Your task to perform on an android device: Toggle the flashlight Image 0: 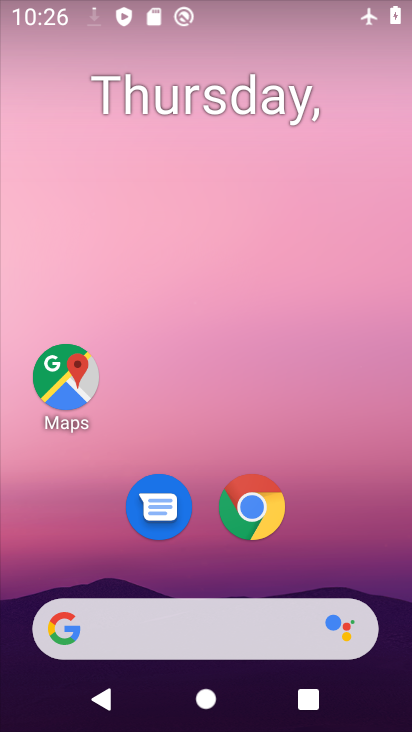
Step 0: drag from (356, 506) to (328, 53)
Your task to perform on an android device: Toggle the flashlight Image 1: 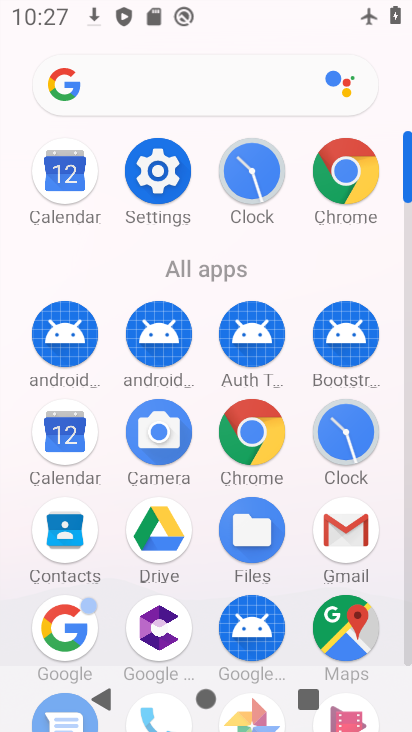
Step 1: drag from (15, 481) to (0, 267)
Your task to perform on an android device: Toggle the flashlight Image 2: 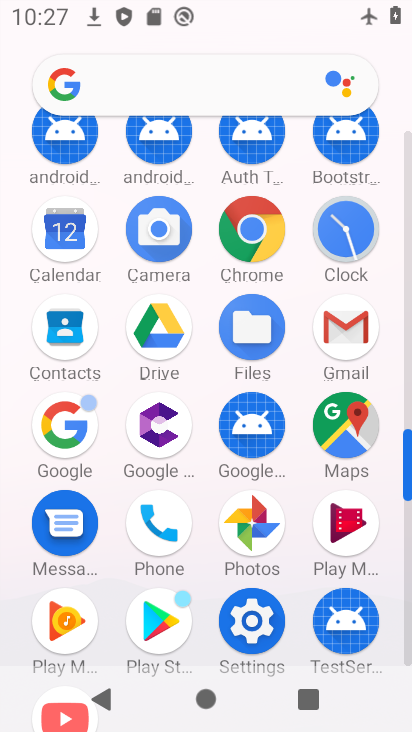
Step 2: click (251, 620)
Your task to perform on an android device: Toggle the flashlight Image 3: 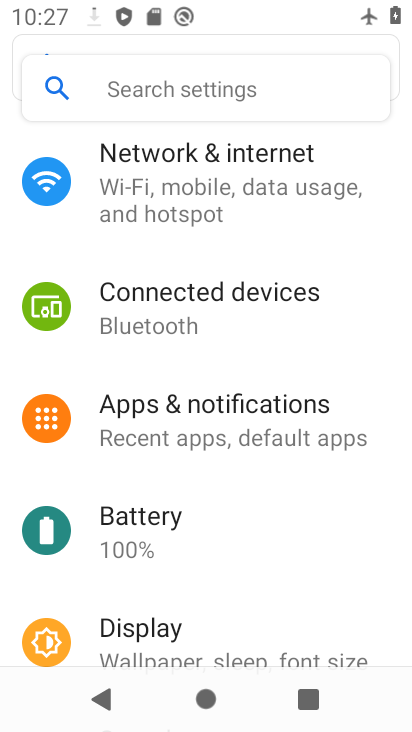
Step 3: click (211, 173)
Your task to perform on an android device: Toggle the flashlight Image 4: 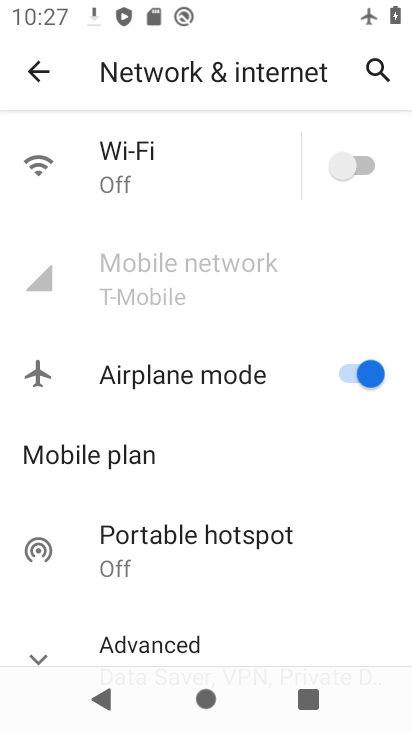
Step 4: click (39, 649)
Your task to perform on an android device: Toggle the flashlight Image 5: 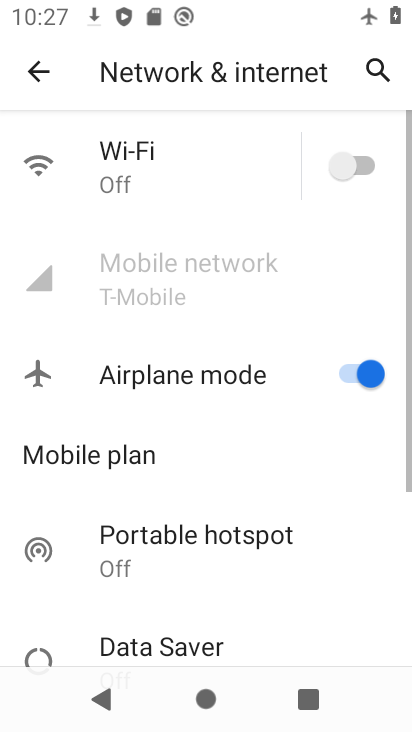
Step 5: task complete